Your task to perform on an android device: turn off airplane mode Image 0: 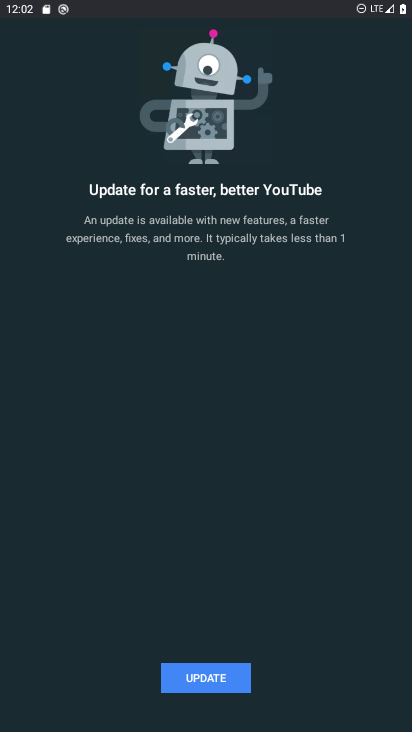
Step 0: press back button
Your task to perform on an android device: turn off airplane mode Image 1: 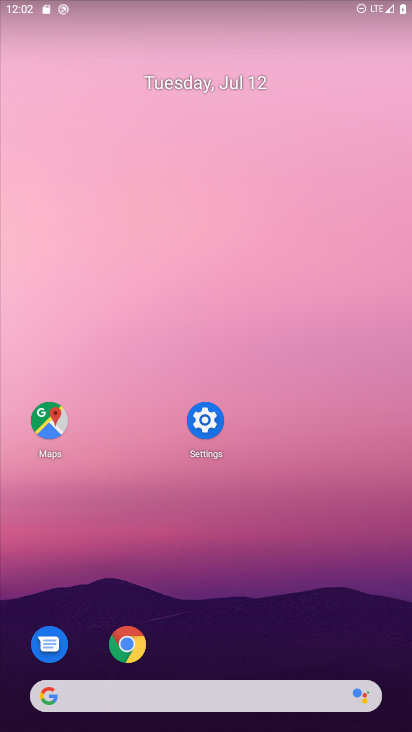
Step 1: click (194, 403)
Your task to perform on an android device: turn off airplane mode Image 2: 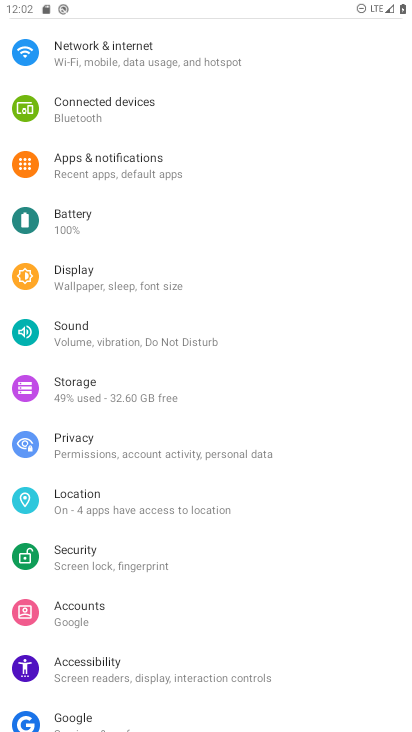
Step 2: drag from (276, 98) to (301, 577)
Your task to perform on an android device: turn off airplane mode Image 3: 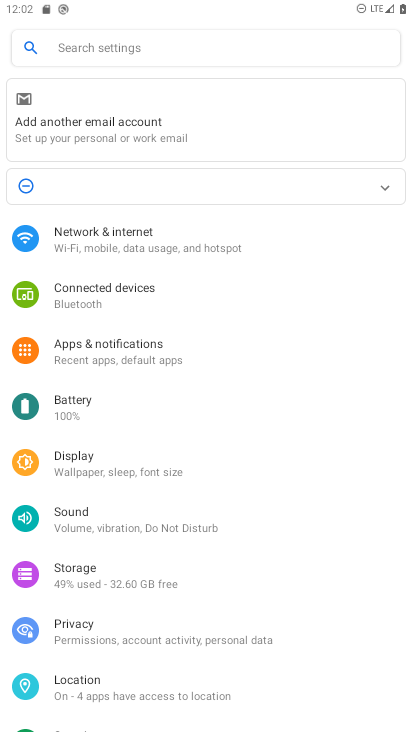
Step 3: click (109, 230)
Your task to perform on an android device: turn off airplane mode Image 4: 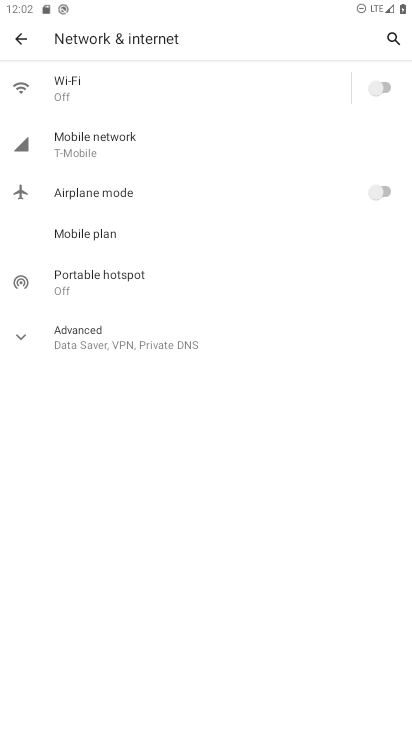
Step 4: task complete